Your task to perform on an android device: What's the weather today? Image 0: 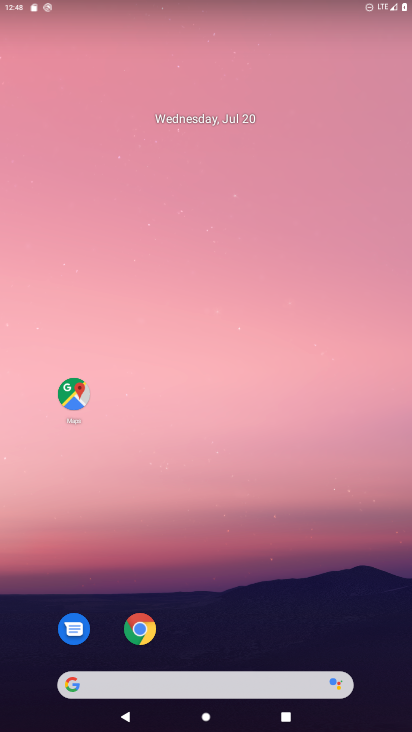
Step 0: drag from (181, 640) to (171, 686)
Your task to perform on an android device: What's the weather today? Image 1: 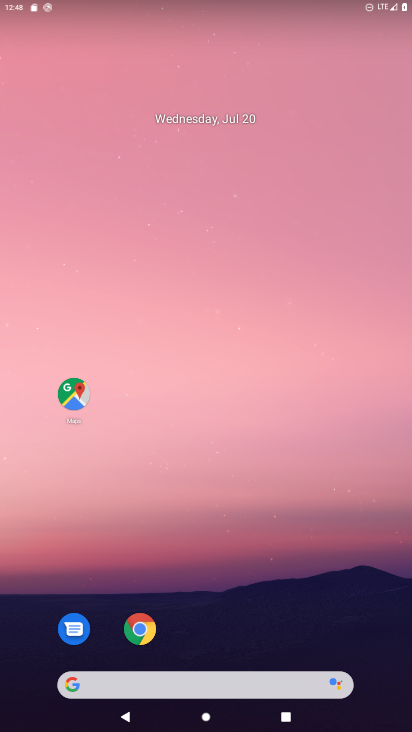
Step 1: click (171, 686)
Your task to perform on an android device: What's the weather today? Image 2: 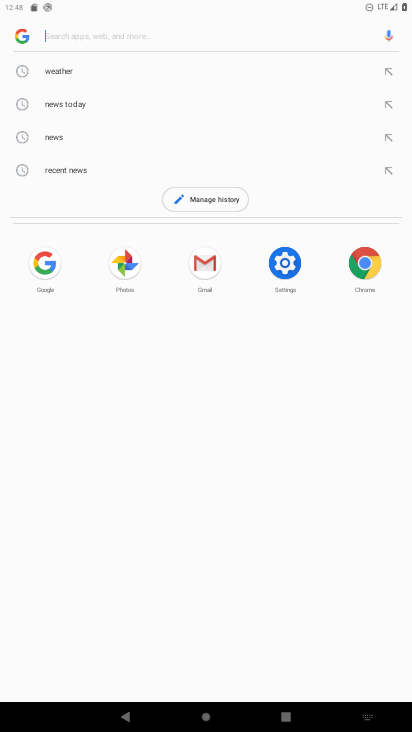
Step 2: click (60, 70)
Your task to perform on an android device: What's the weather today? Image 3: 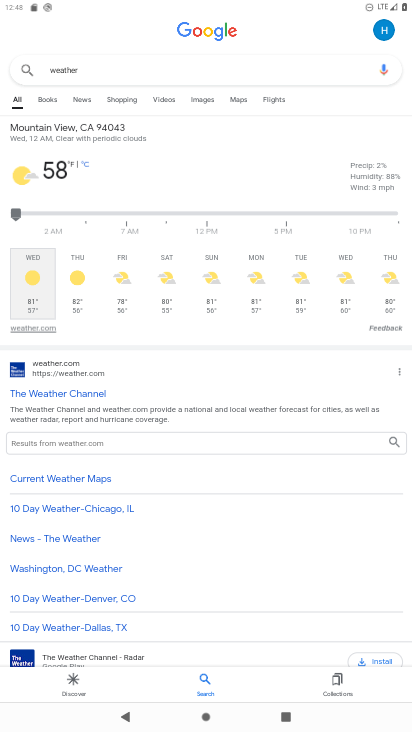
Step 3: task complete